Your task to perform on an android device: Go to calendar. Show me events next week Image 0: 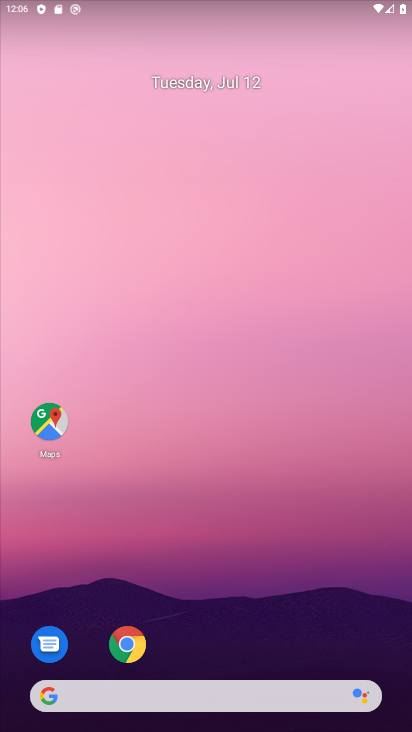
Step 0: drag from (9, 704) to (330, 40)
Your task to perform on an android device: Go to calendar. Show me events next week Image 1: 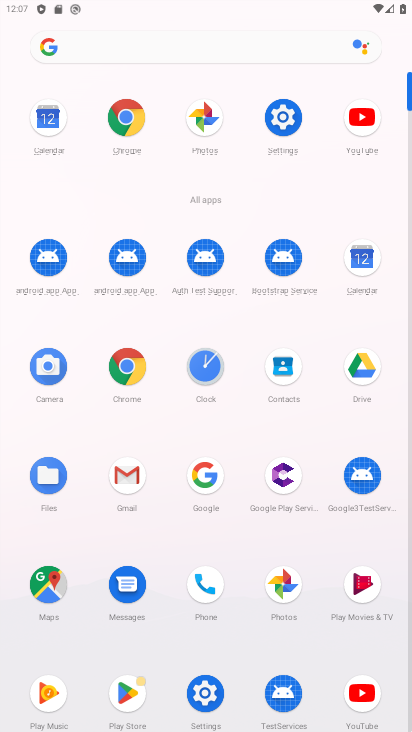
Step 1: click (359, 269)
Your task to perform on an android device: Go to calendar. Show me events next week Image 2: 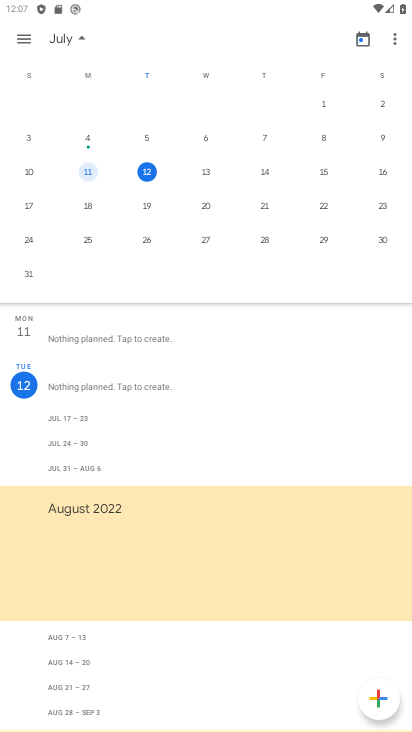
Step 2: task complete